Your task to perform on an android device: Is it going to rain this weekend? Image 0: 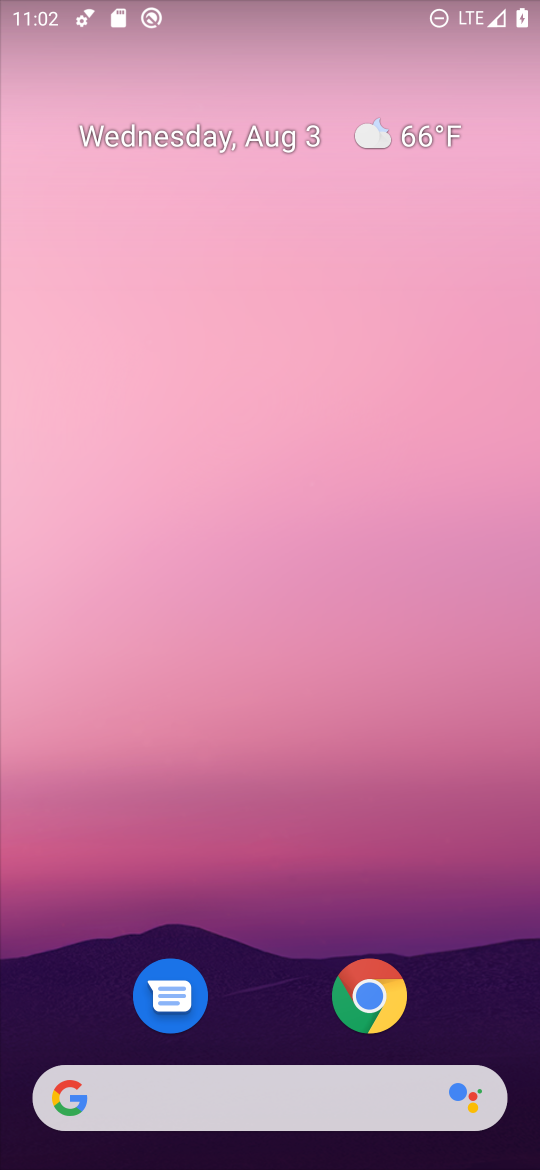
Step 0: click (405, 132)
Your task to perform on an android device: Is it going to rain this weekend? Image 1: 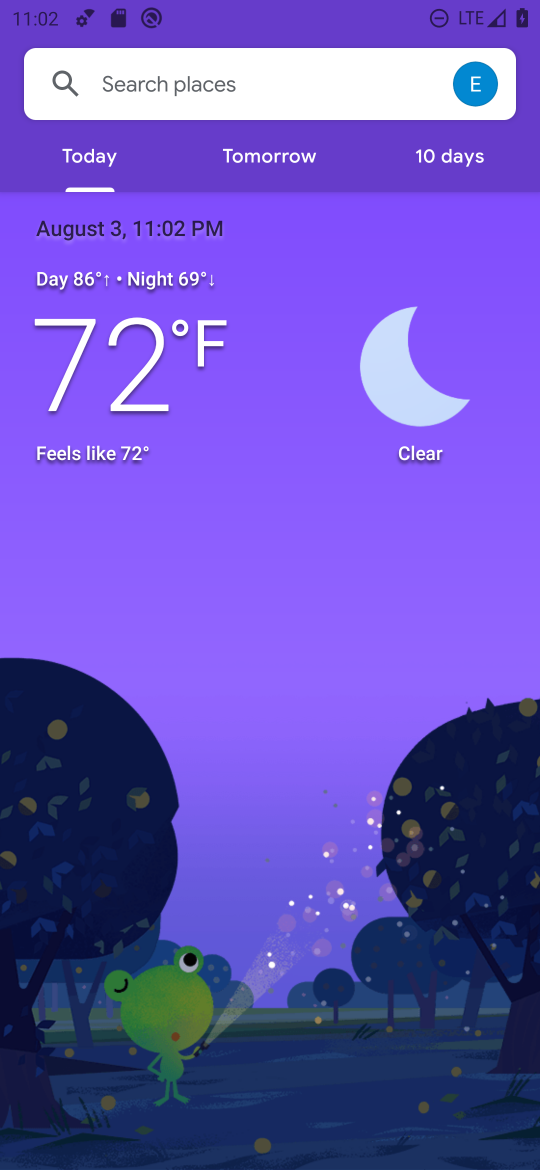
Step 1: click (451, 170)
Your task to perform on an android device: Is it going to rain this weekend? Image 2: 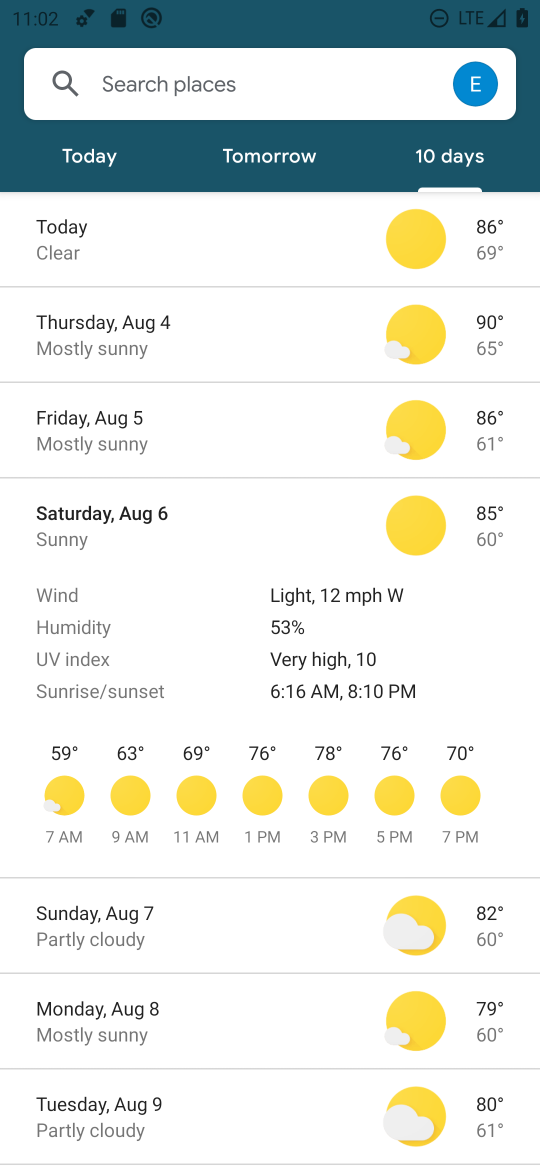
Step 2: task complete